Your task to perform on an android device: What's a good restaurant in Boston? Image 0: 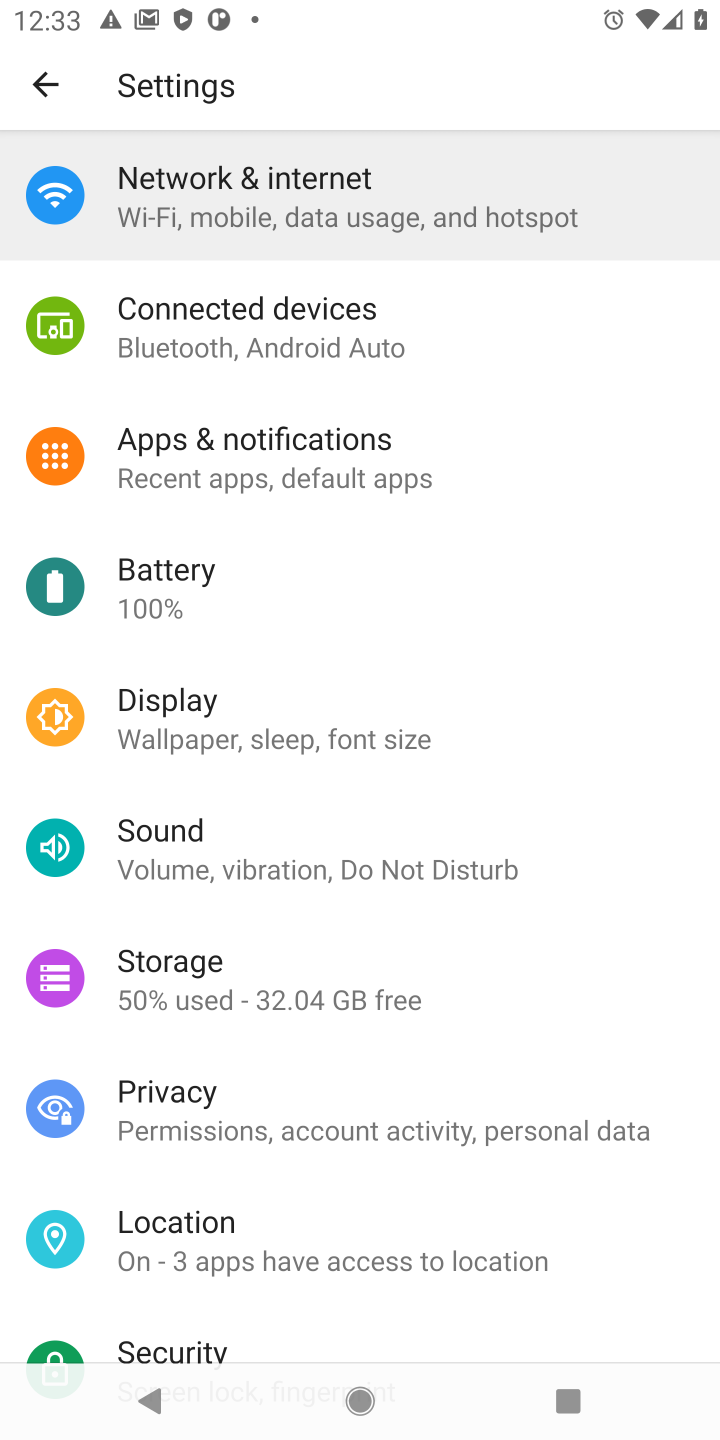
Step 0: press home button
Your task to perform on an android device: What's a good restaurant in Boston? Image 1: 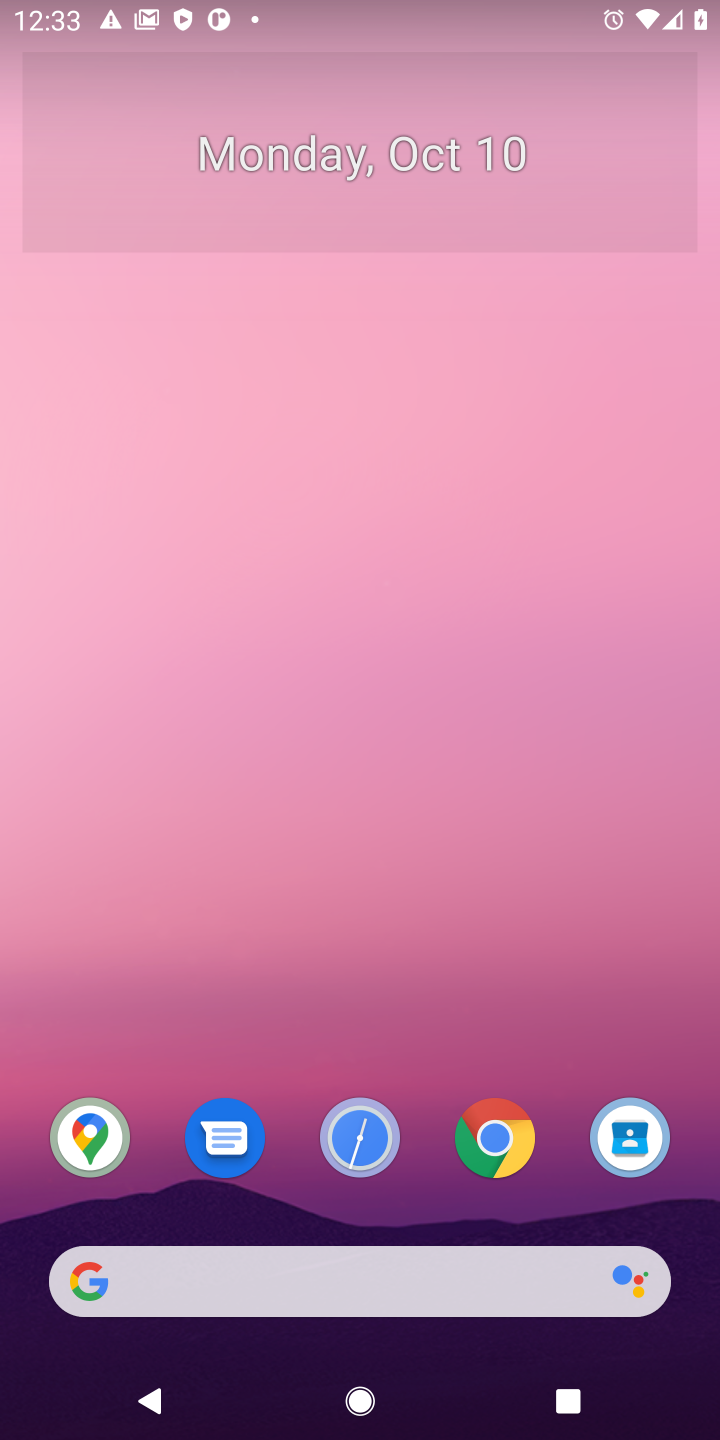
Step 1: click (498, 1124)
Your task to perform on an android device: What's a good restaurant in Boston? Image 2: 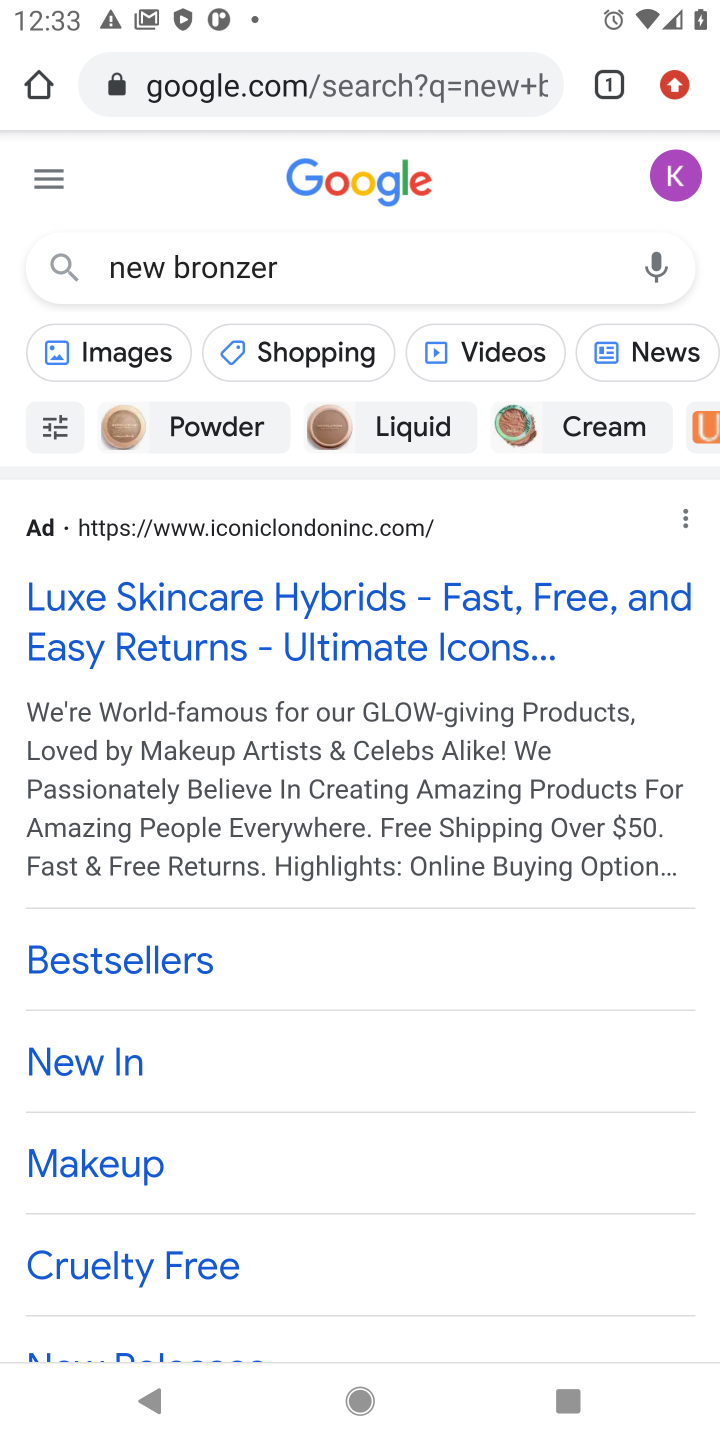
Step 2: click (437, 244)
Your task to perform on an android device: What's a good restaurant in Boston? Image 3: 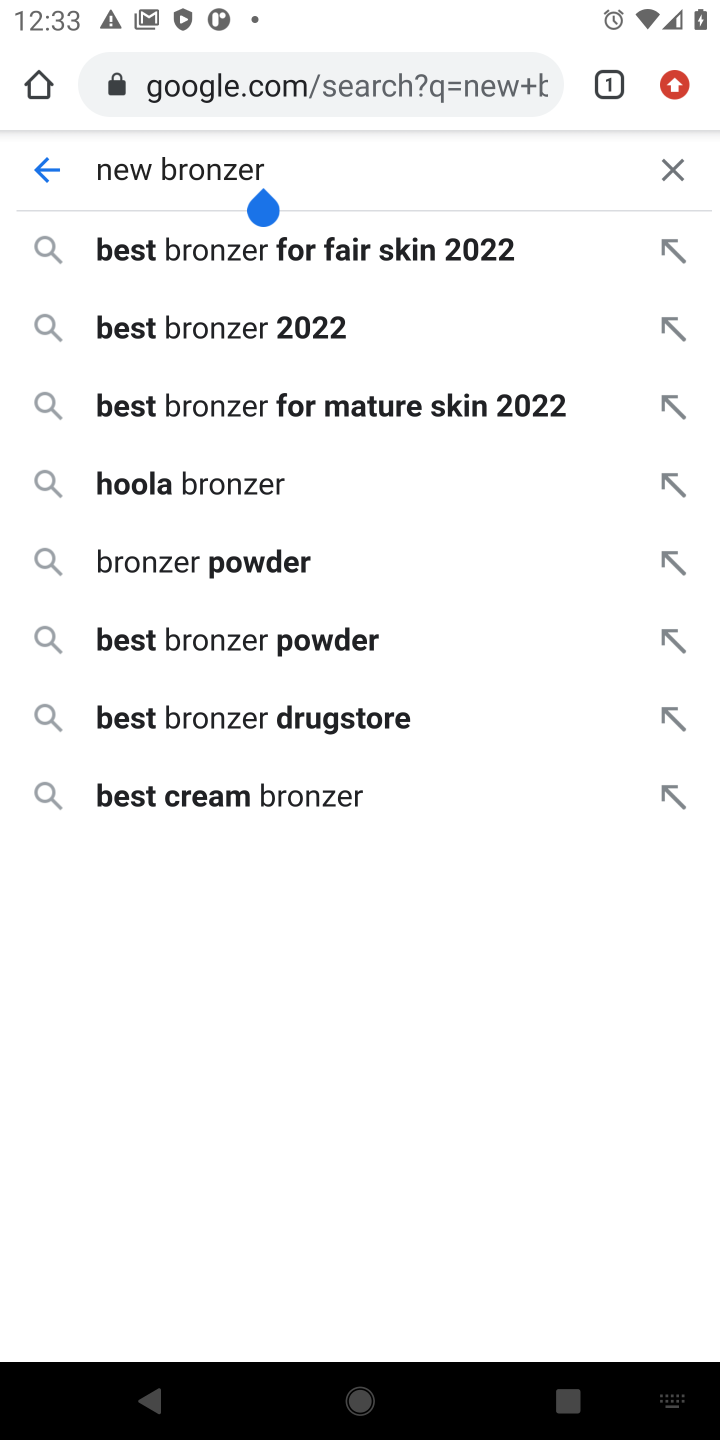
Step 3: click (685, 169)
Your task to perform on an android device: What's a good restaurant in Boston? Image 4: 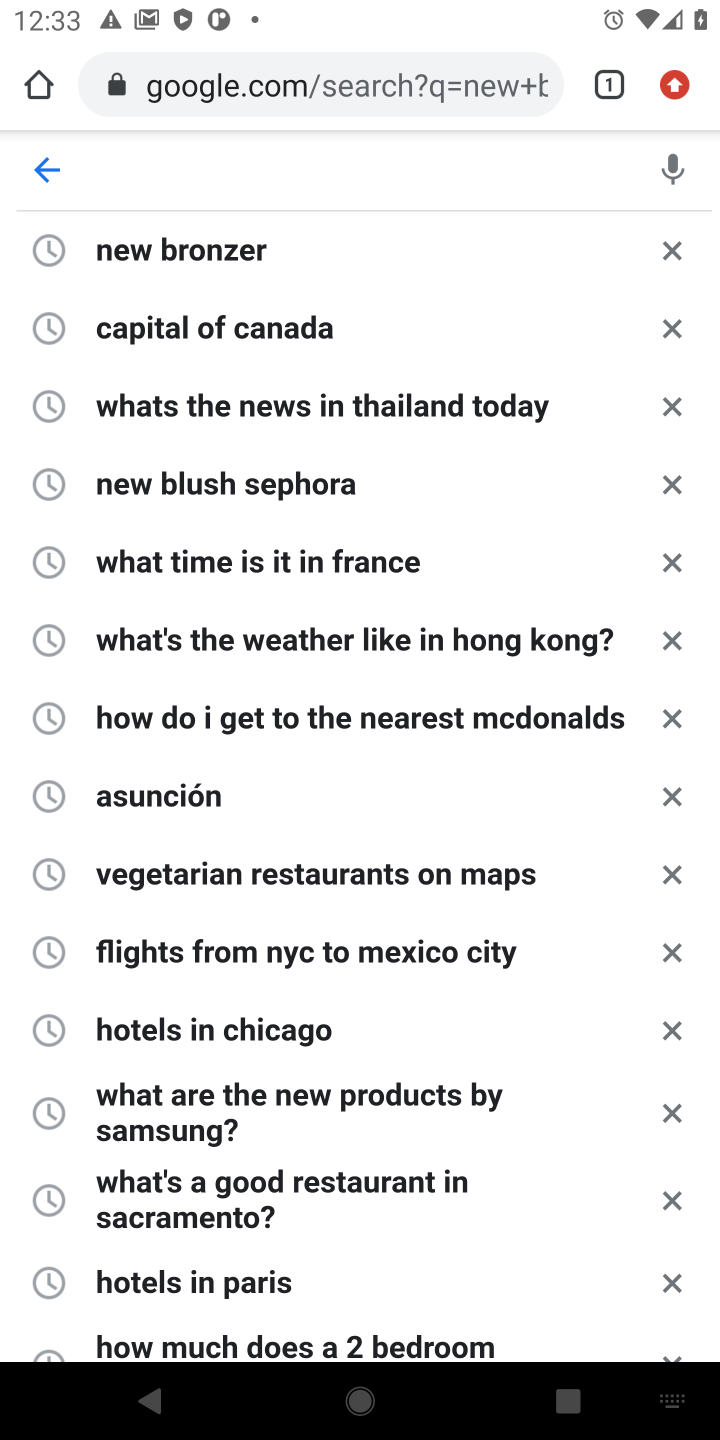
Step 4: drag from (370, 1428) to (557, 1435)
Your task to perform on an android device: What's a good restaurant in Boston? Image 5: 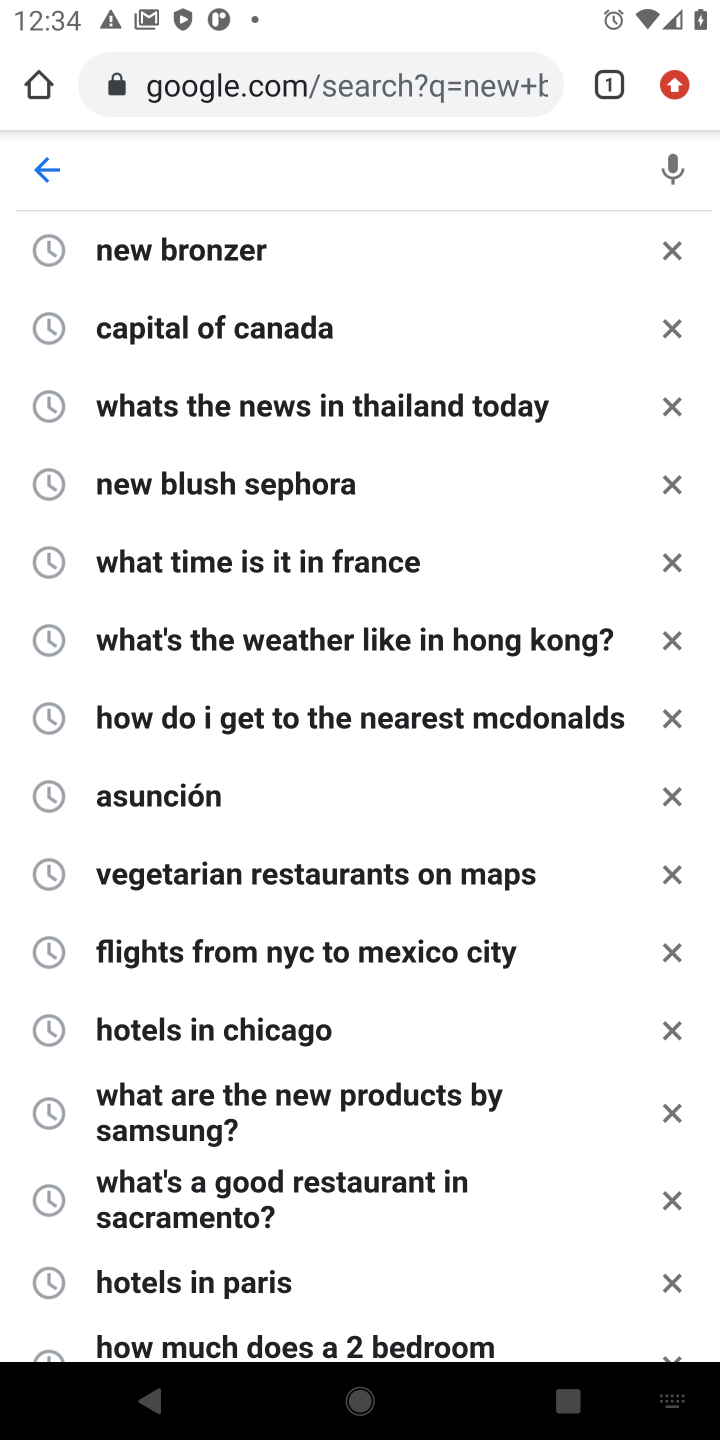
Step 5: type "good restaurant in Boston?"
Your task to perform on an android device: What's a good restaurant in Boston? Image 6: 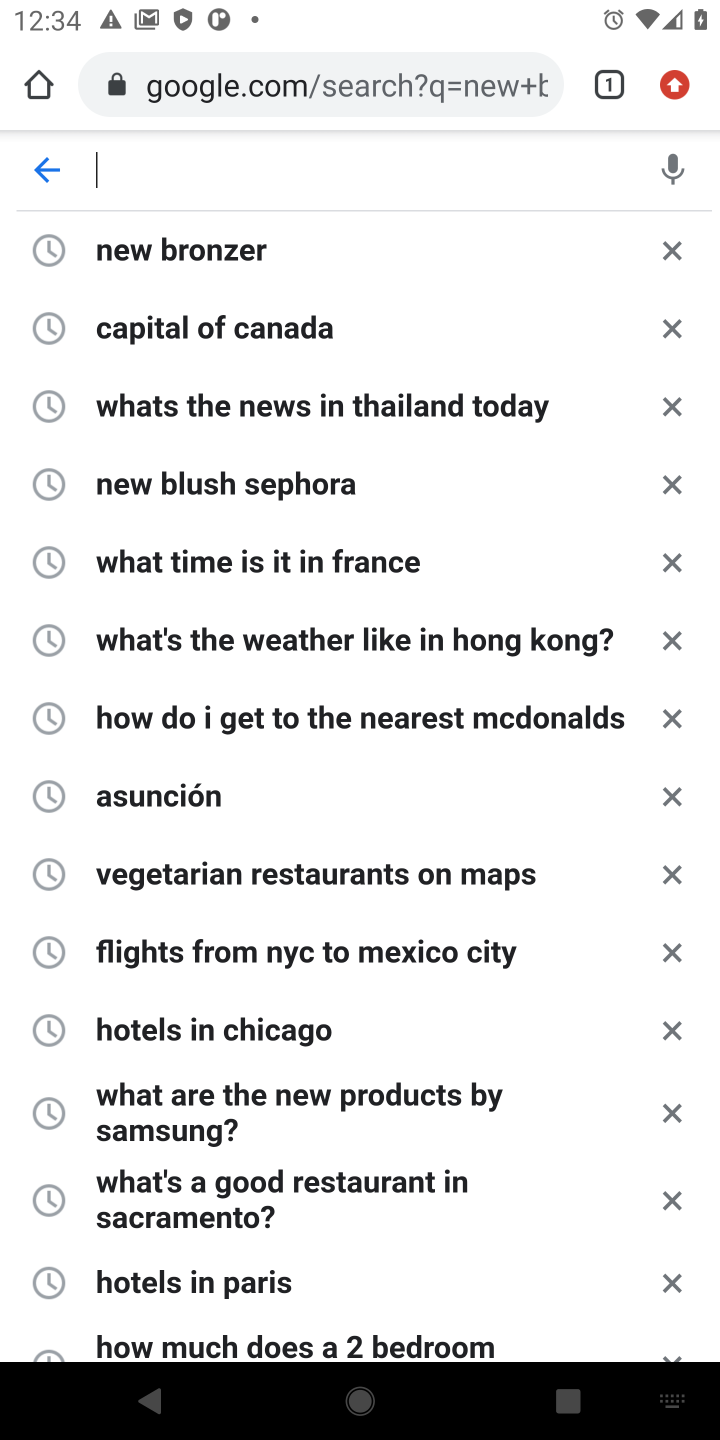
Step 6: drag from (557, 1435) to (718, 328)
Your task to perform on an android device: What's a good restaurant in Boston? Image 7: 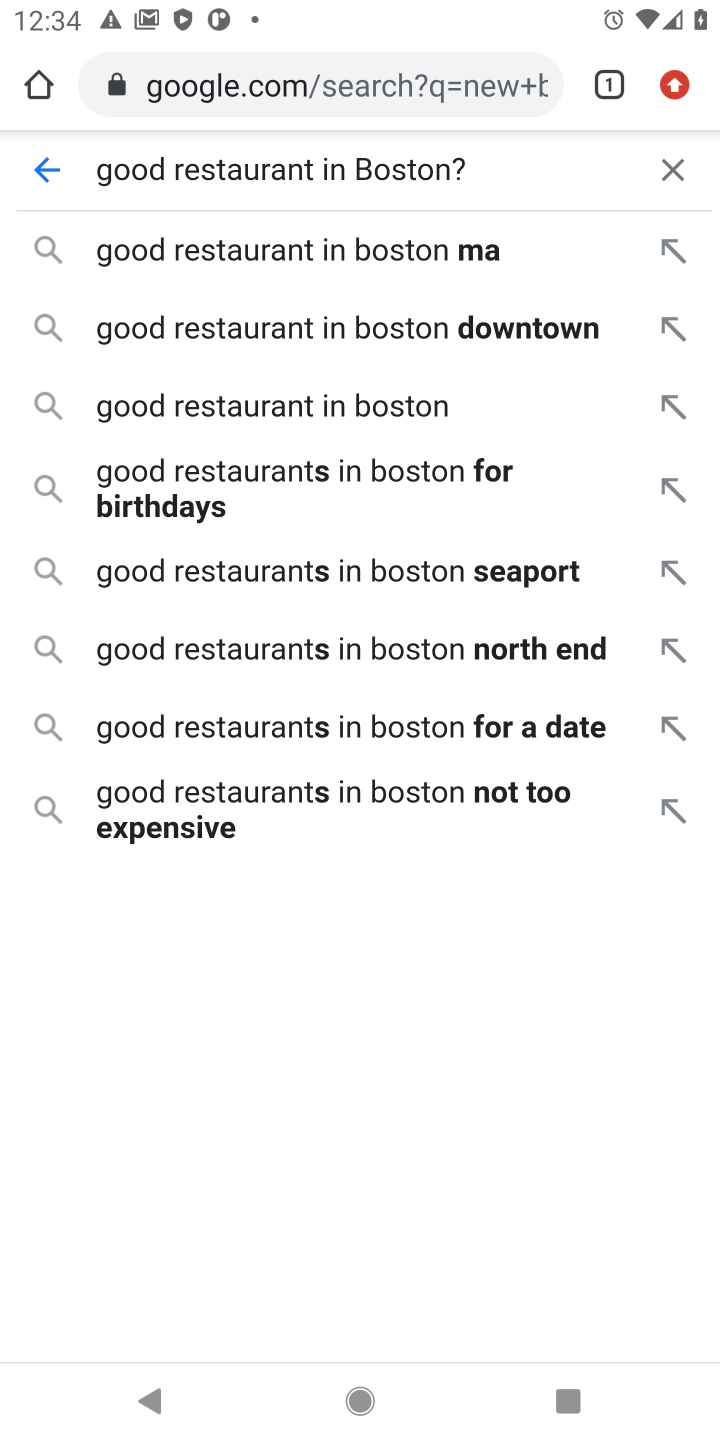
Step 7: press enter
Your task to perform on an android device: What's a good restaurant in Boston? Image 8: 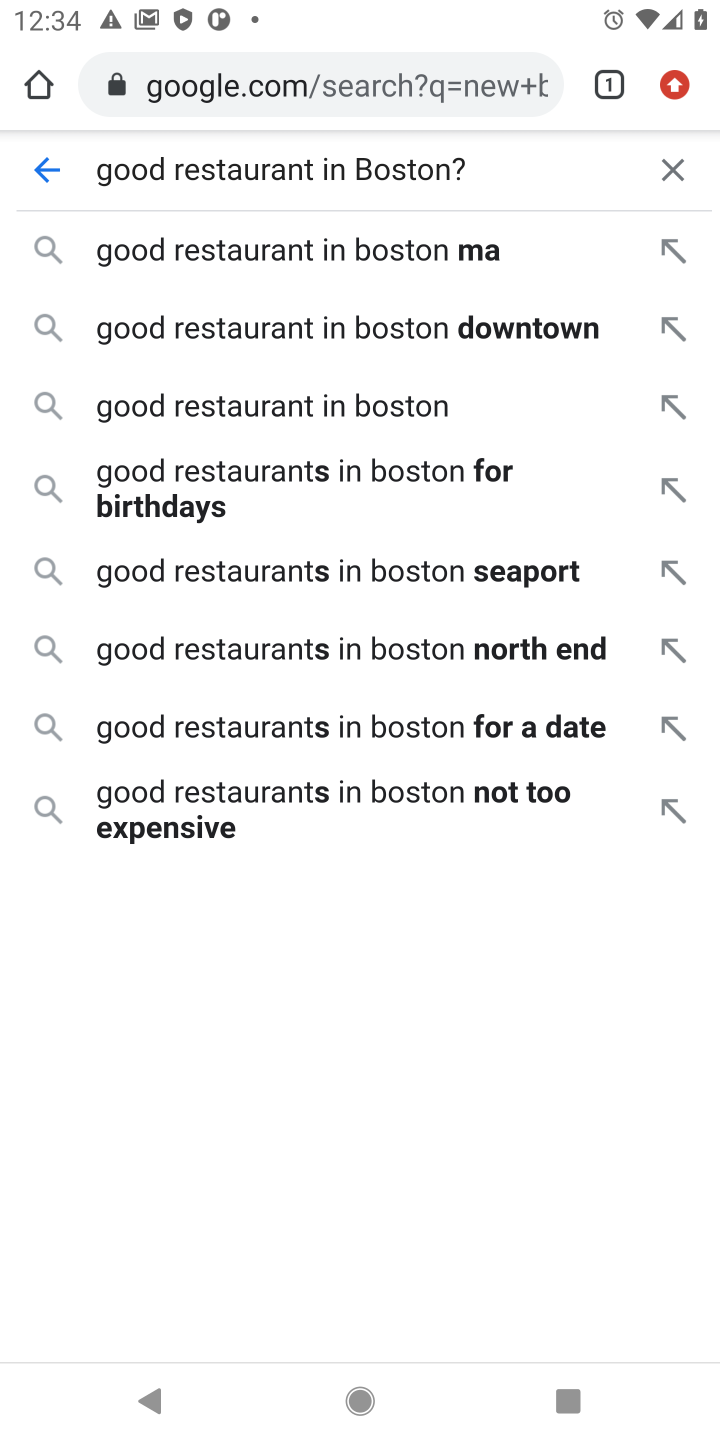
Step 8: press enter
Your task to perform on an android device: What's a good restaurant in Boston? Image 9: 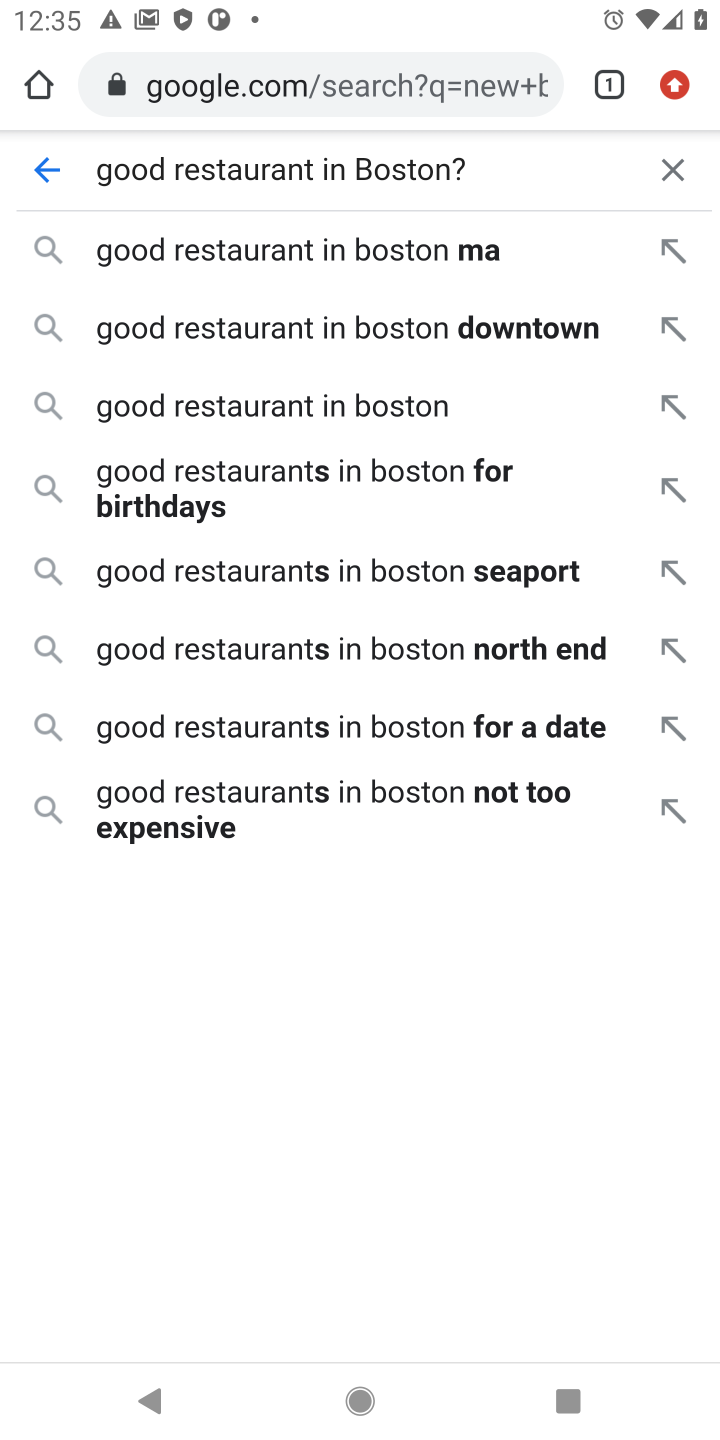
Step 9: task complete